Your task to perform on an android device: Go to wifi settings Image 0: 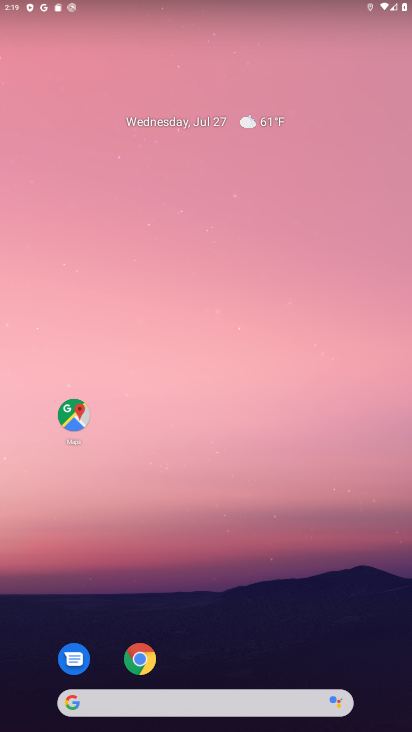
Step 0: drag from (213, 668) to (141, 198)
Your task to perform on an android device: Go to wifi settings Image 1: 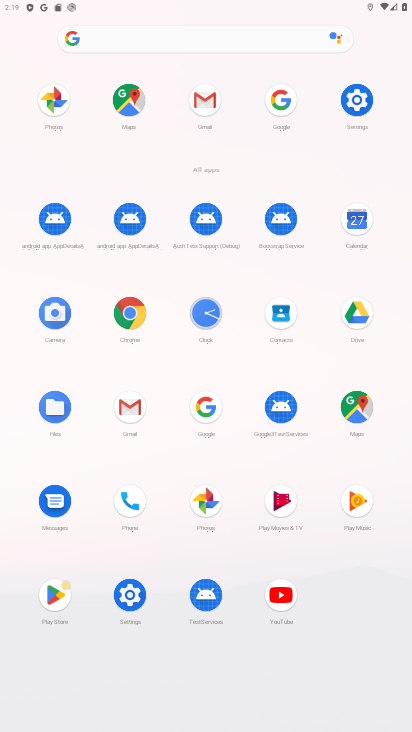
Step 1: click (343, 105)
Your task to perform on an android device: Go to wifi settings Image 2: 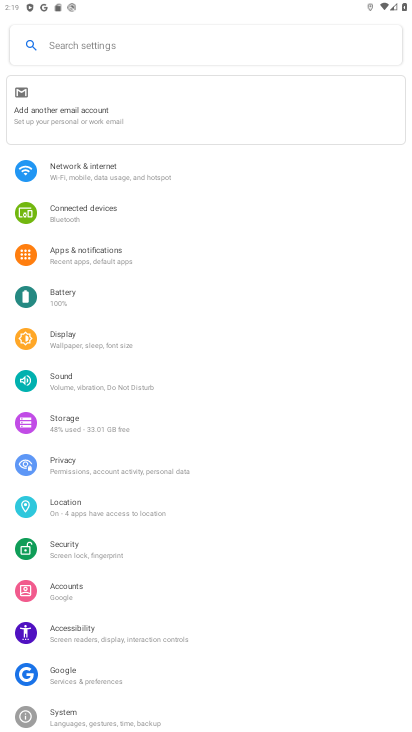
Step 2: click (96, 175)
Your task to perform on an android device: Go to wifi settings Image 3: 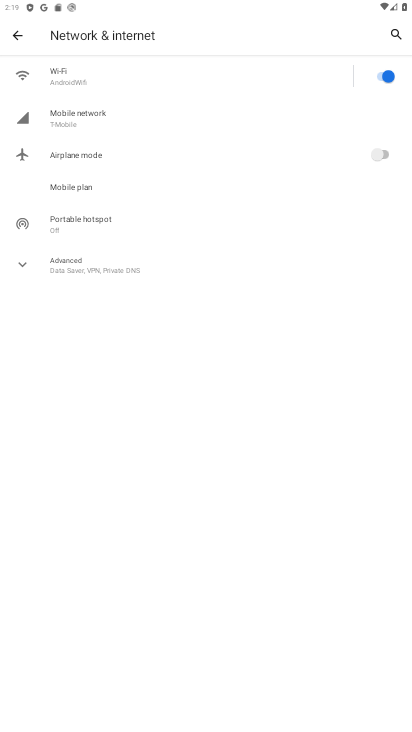
Step 3: click (75, 75)
Your task to perform on an android device: Go to wifi settings Image 4: 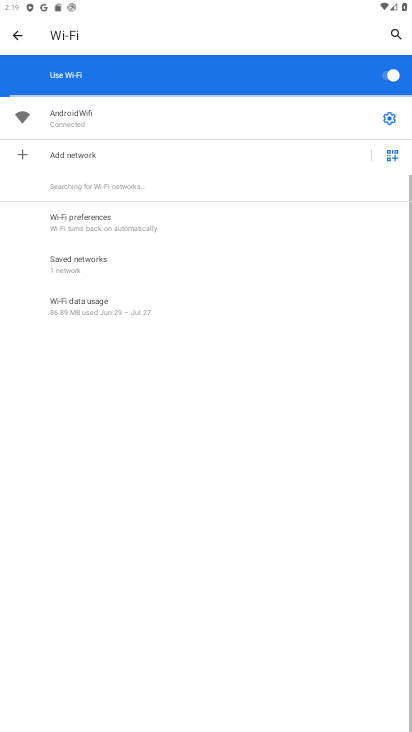
Step 4: click (385, 118)
Your task to perform on an android device: Go to wifi settings Image 5: 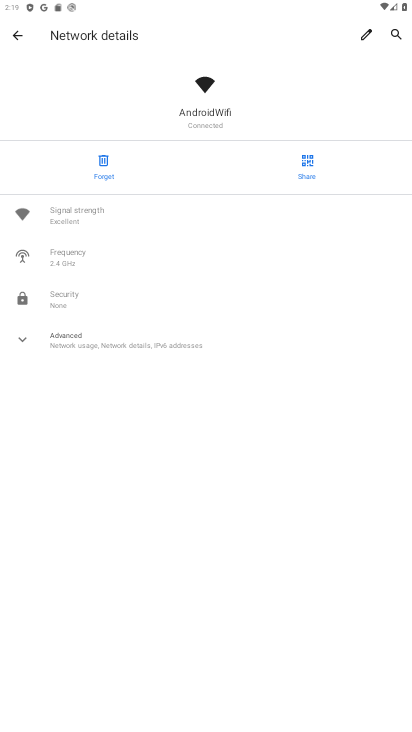
Step 5: click (47, 343)
Your task to perform on an android device: Go to wifi settings Image 6: 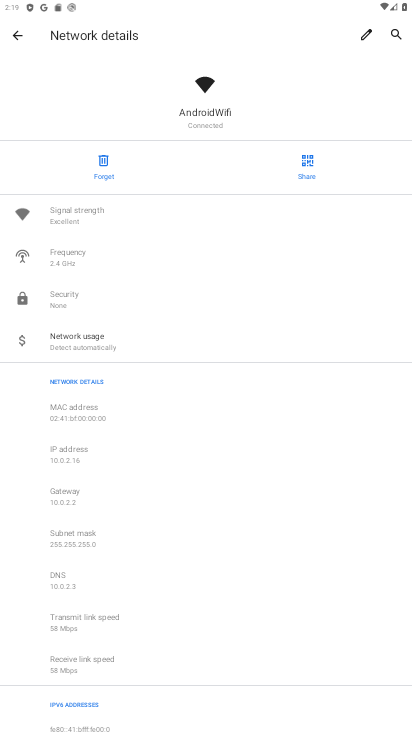
Step 6: task complete